Your task to perform on an android device: Go to Android settings Image 0: 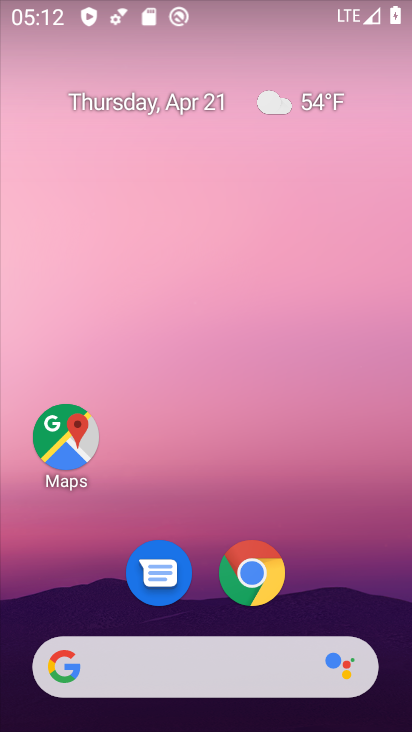
Step 0: drag from (388, 626) to (315, 273)
Your task to perform on an android device: Go to Android settings Image 1: 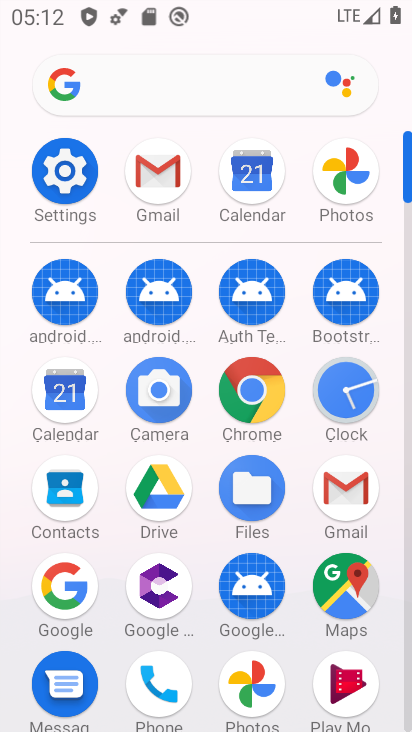
Step 1: click (409, 696)
Your task to perform on an android device: Go to Android settings Image 2: 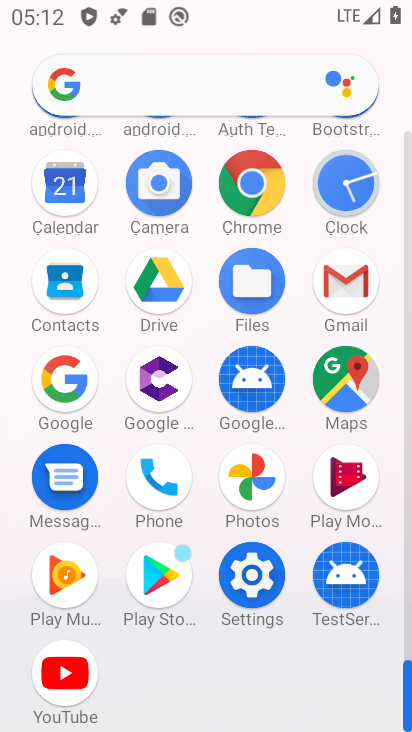
Step 2: click (251, 575)
Your task to perform on an android device: Go to Android settings Image 3: 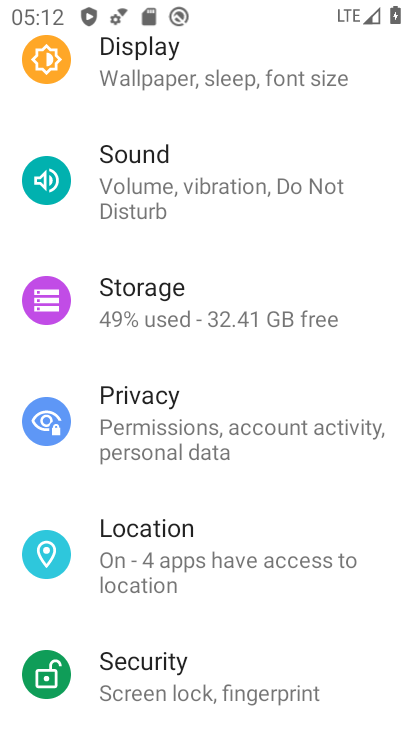
Step 3: drag from (345, 603) to (360, 317)
Your task to perform on an android device: Go to Android settings Image 4: 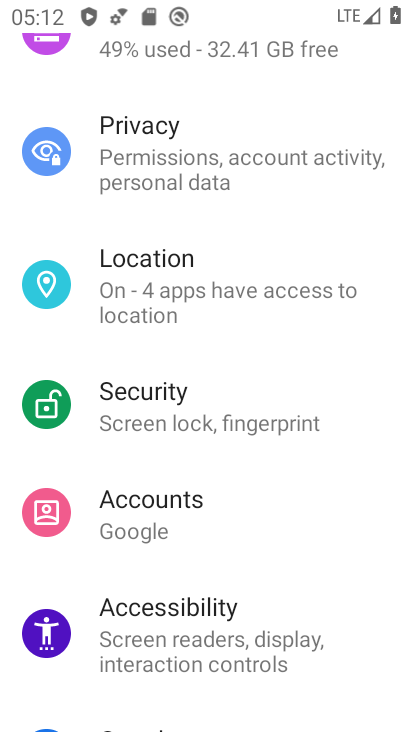
Step 4: drag from (339, 593) to (358, 296)
Your task to perform on an android device: Go to Android settings Image 5: 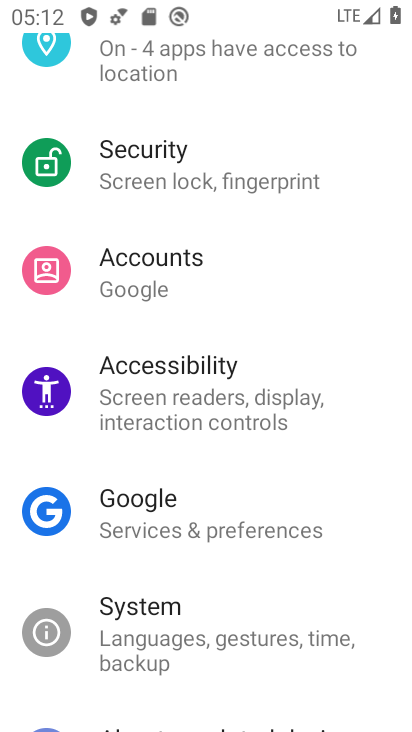
Step 5: drag from (353, 570) to (344, 248)
Your task to perform on an android device: Go to Android settings Image 6: 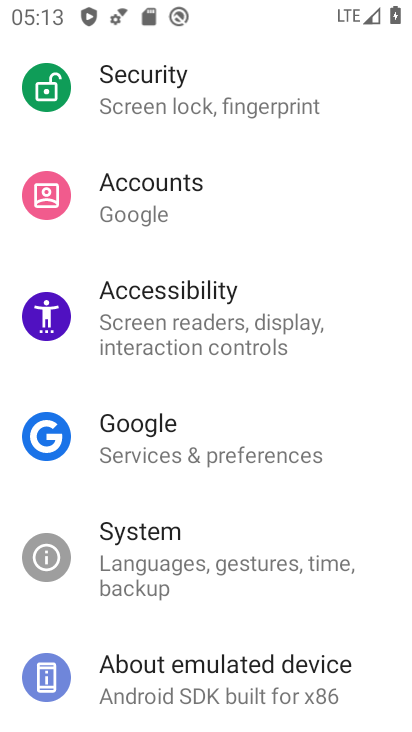
Step 6: click (177, 674)
Your task to perform on an android device: Go to Android settings Image 7: 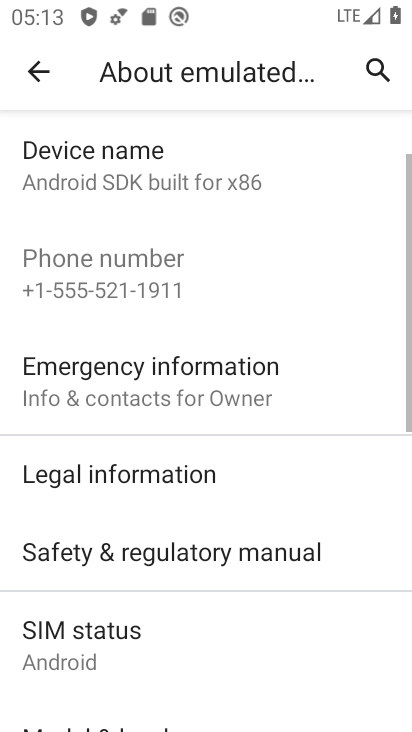
Step 7: drag from (334, 582) to (334, 293)
Your task to perform on an android device: Go to Android settings Image 8: 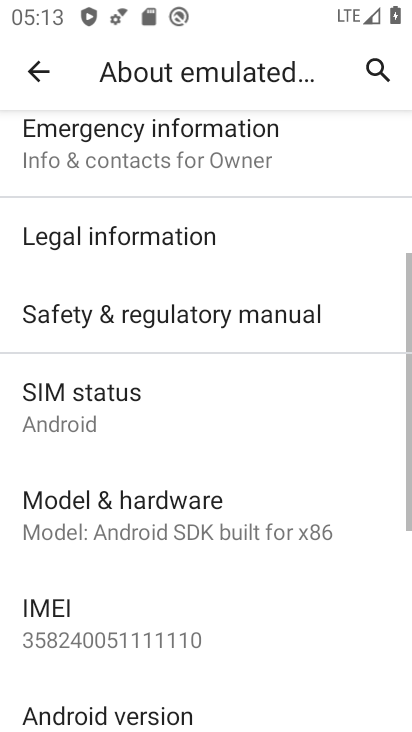
Step 8: drag from (315, 571) to (345, 285)
Your task to perform on an android device: Go to Android settings Image 9: 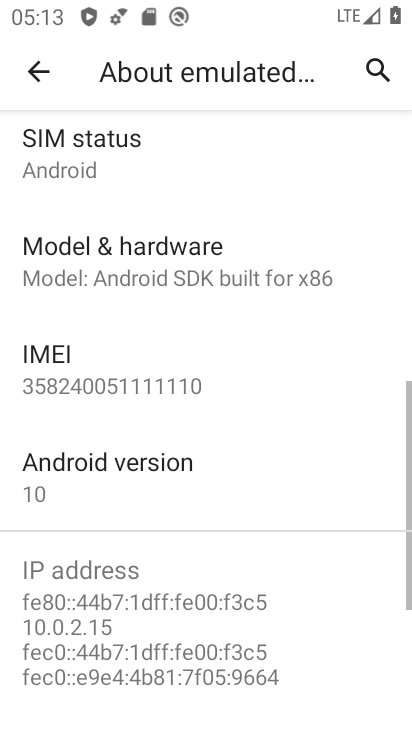
Step 9: click (61, 470)
Your task to perform on an android device: Go to Android settings Image 10: 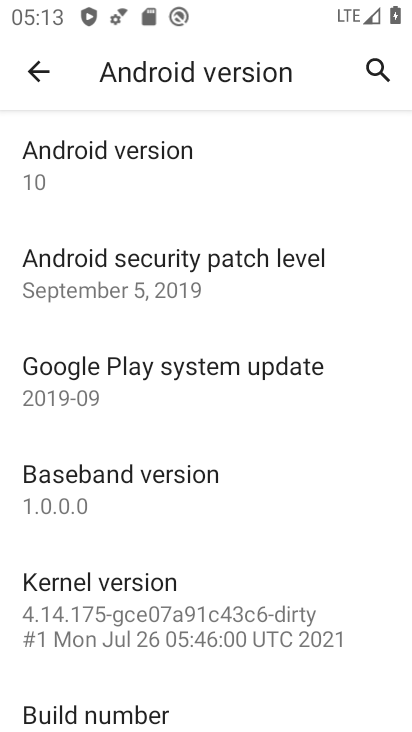
Step 10: task complete